Your task to perform on an android device: Open Google Chrome Image 0: 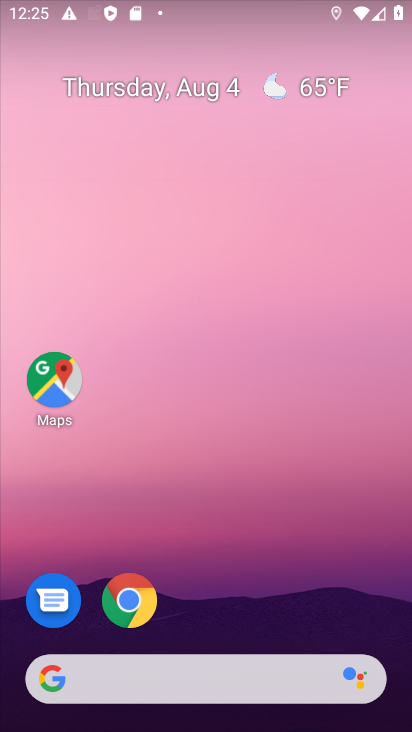
Step 0: click (139, 612)
Your task to perform on an android device: Open Google Chrome Image 1: 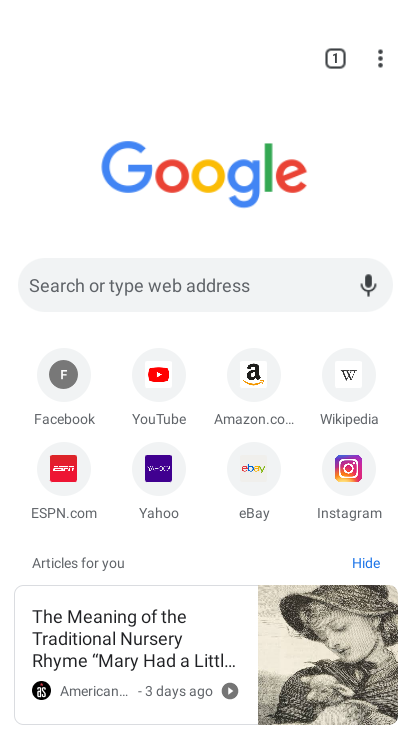
Step 1: task complete